Your task to perform on an android device: Go to battery settings Image 0: 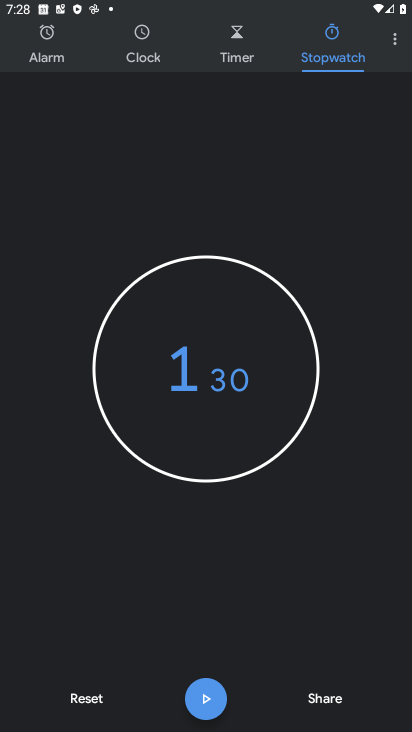
Step 0: press home button
Your task to perform on an android device: Go to battery settings Image 1: 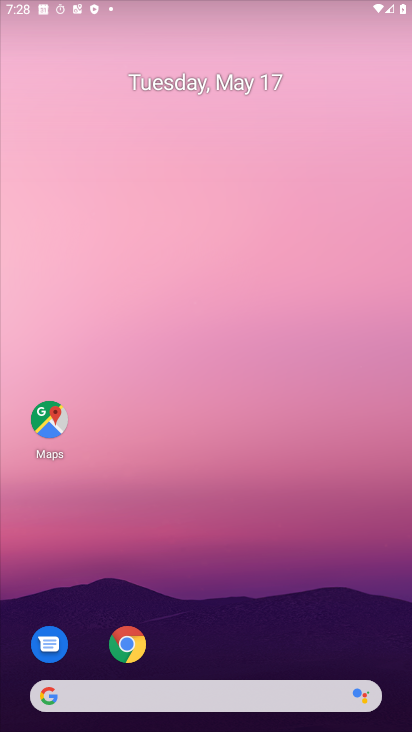
Step 1: drag from (339, 645) to (256, 50)
Your task to perform on an android device: Go to battery settings Image 2: 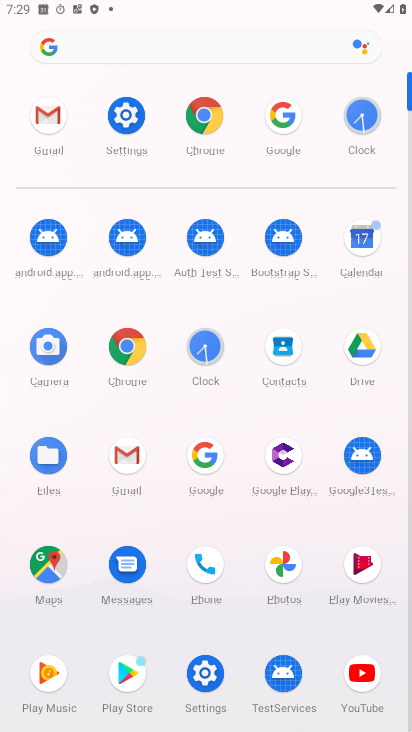
Step 2: click (209, 679)
Your task to perform on an android device: Go to battery settings Image 3: 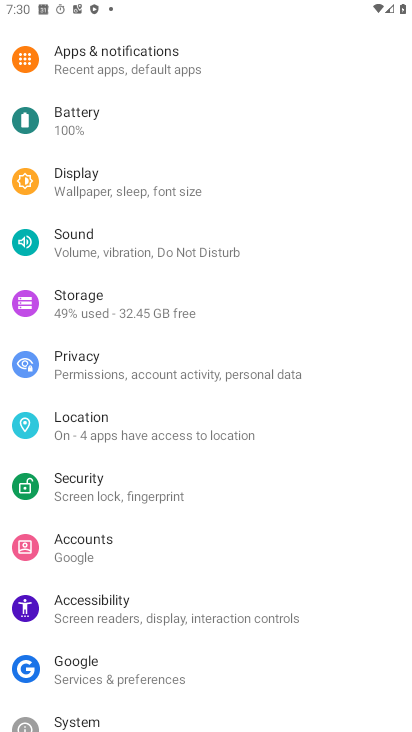
Step 3: drag from (78, 649) to (65, 250)
Your task to perform on an android device: Go to battery settings Image 4: 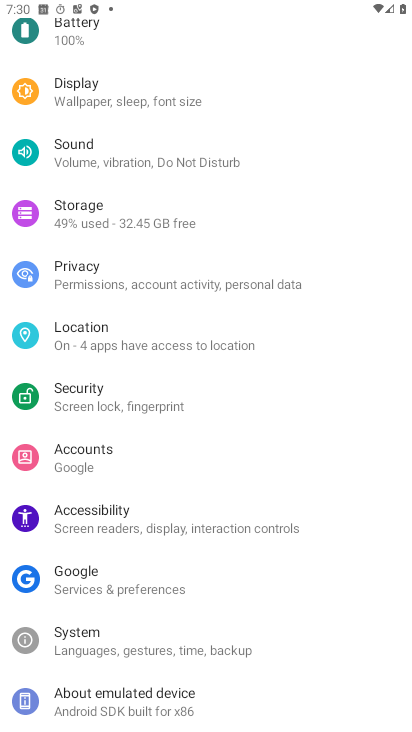
Step 4: drag from (138, 166) to (152, 577)
Your task to perform on an android device: Go to battery settings Image 5: 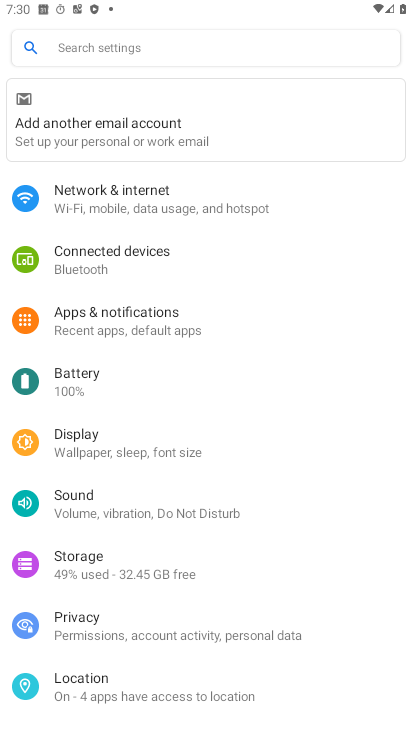
Step 5: click (101, 375)
Your task to perform on an android device: Go to battery settings Image 6: 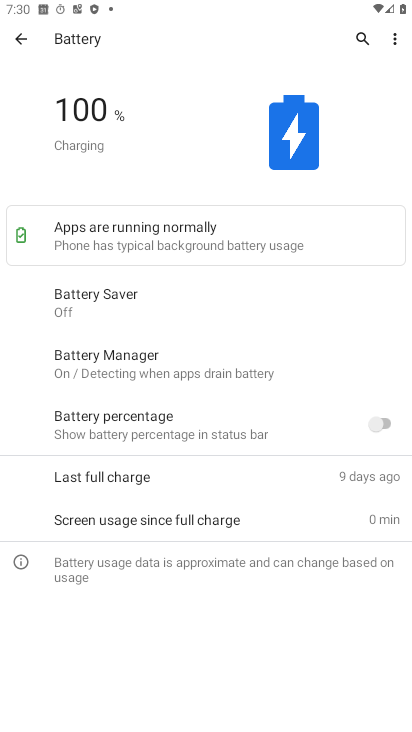
Step 6: task complete